Your task to perform on an android device: move an email to a new category in the gmail app Image 0: 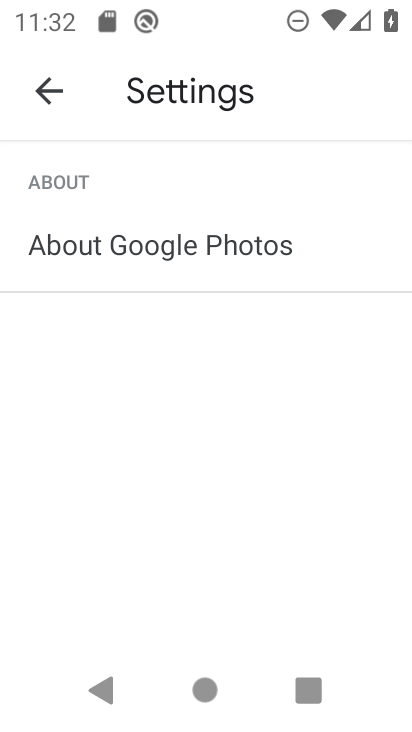
Step 0: press home button
Your task to perform on an android device: move an email to a new category in the gmail app Image 1: 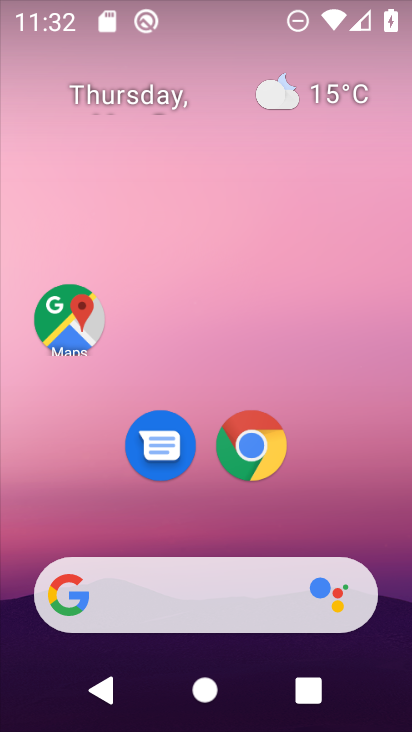
Step 1: drag from (222, 512) to (225, 61)
Your task to perform on an android device: move an email to a new category in the gmail app Image 2: 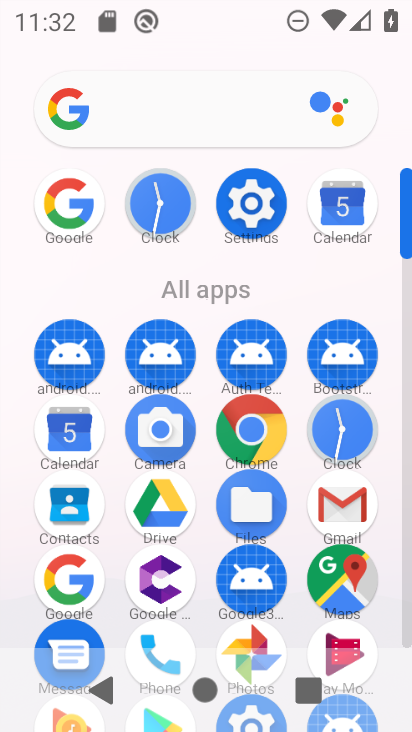
Step 2: click (348, 504)
Your task to perform on an android device: move an email to a new category in the gmail app Image 3: 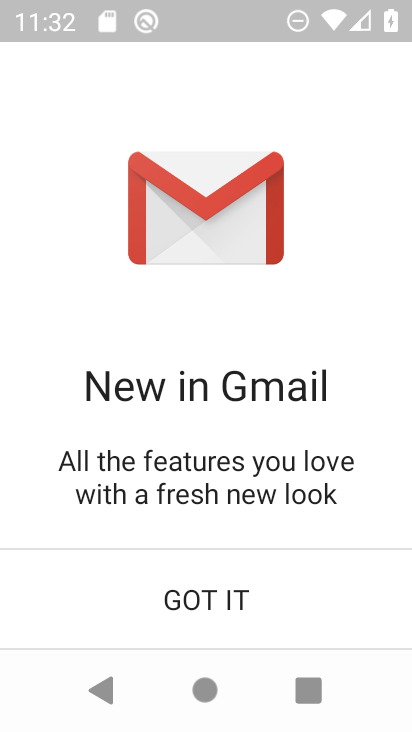
Step 3: click (229, 596)
Your task to perform on an android device: move an email to a new category in the gmail app Image 4: 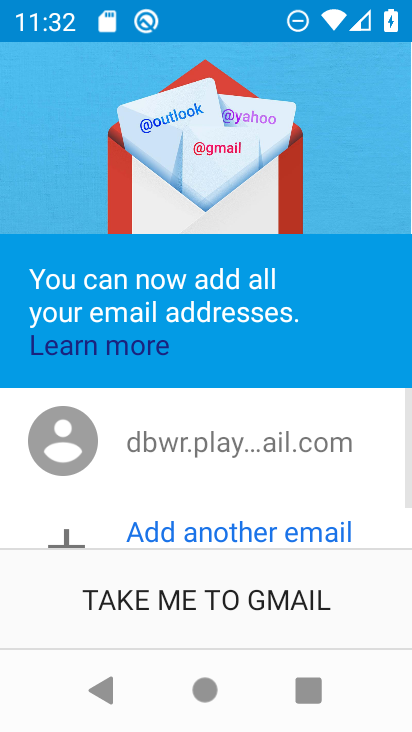
Step 4: click (220, 599)
Your task to perform on an android device: move an email to a new category in the gmail app Image 5: 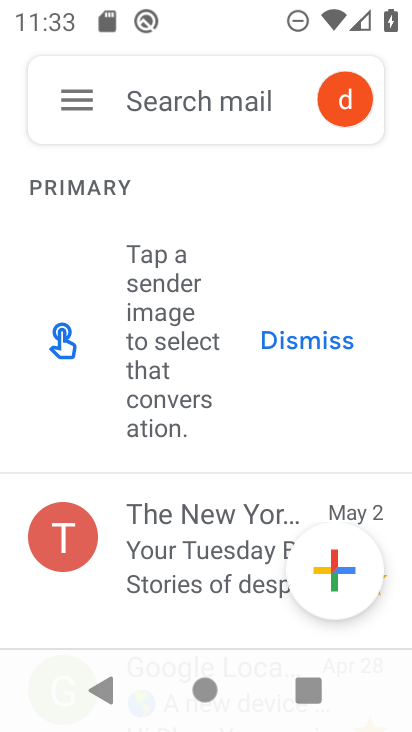
Step 5: click (197, 512)
Your task to perform on an android device: move an email to a new category in the gmail app Image 6: 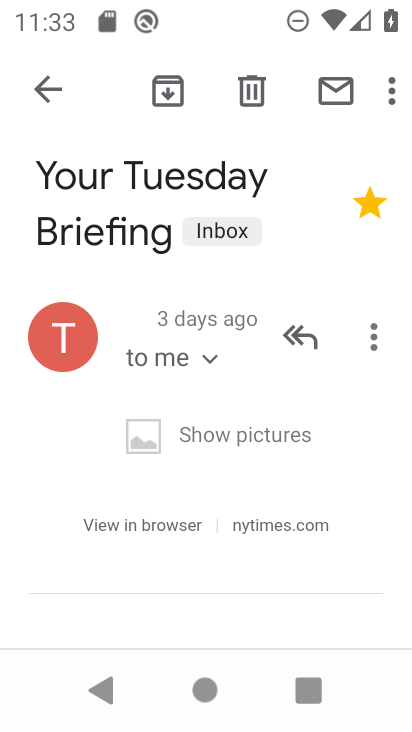
Step 6: click (389, 97)
Your task to perform on an android device: move an email to a new category in the gmail app Image 7: 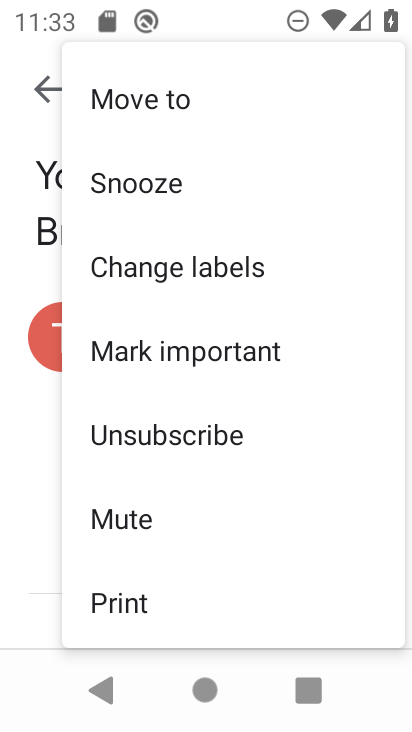
Step 7: click (164, 183)
Your task to perform on an android device: move an email to a new category in the gmail app Image 8: 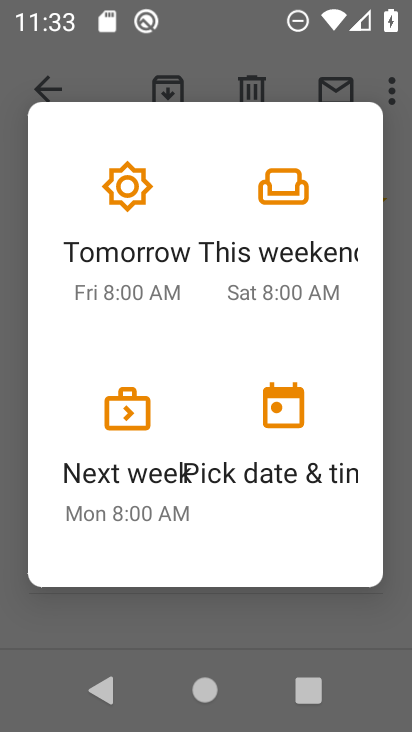
Step 8: click (130, 198)
Your task to perform on an android device: move an email to a new category in the gmail app Image 9: 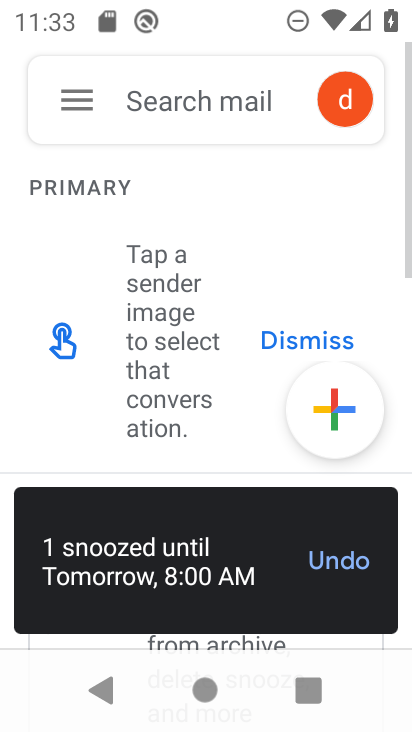
Step 9: task complete